Your task to perform on an android device: Check the weather Image 0: 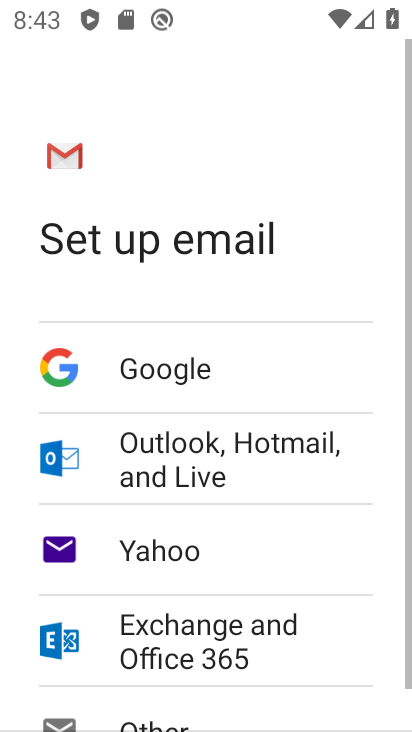
Step 0: press home button
Your task to perform on an android device: Check the weather Image 1: 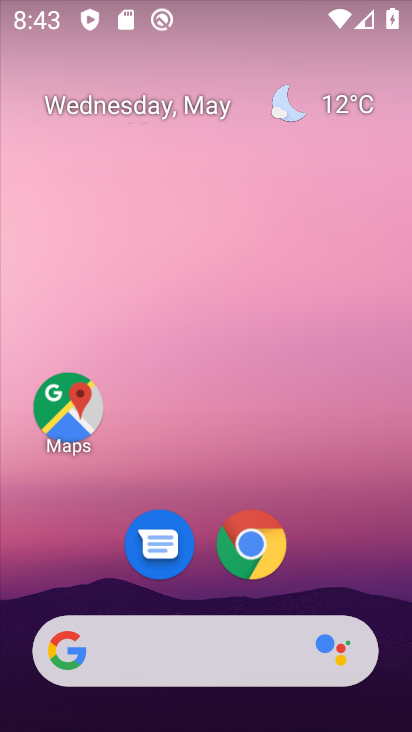
Step 1: click (364, 89)
Your task to perform on an android device: Check the weather Image 2: 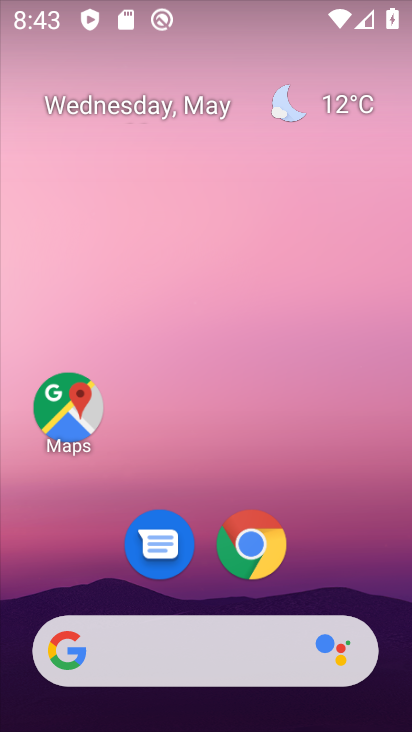
Step 2: click (356, 103)
Your task to perform on an android device: Check the weather Image 3: 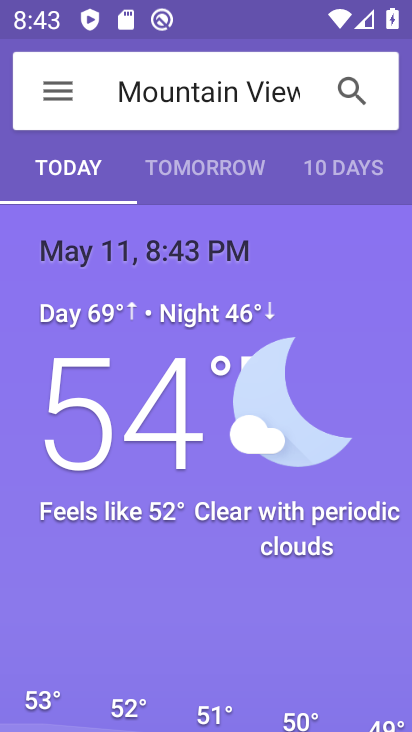
Step 3: task complete